Your task to perform on an android device: Open Yahoo.com Image 0: 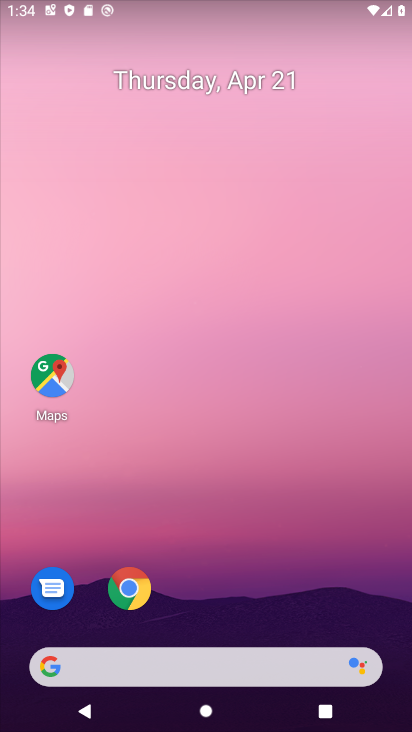
Step 0: drag from (182, 649) to (175, 302)
Your task to perform on an android device: Open Yahoo.com Image 1: 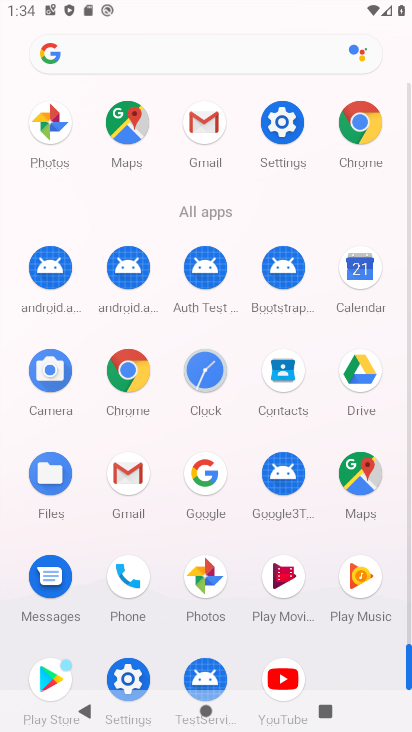
Step 1: click (358, 137)
Your task to perform on an android device: Open Yahoo.com Image 2: 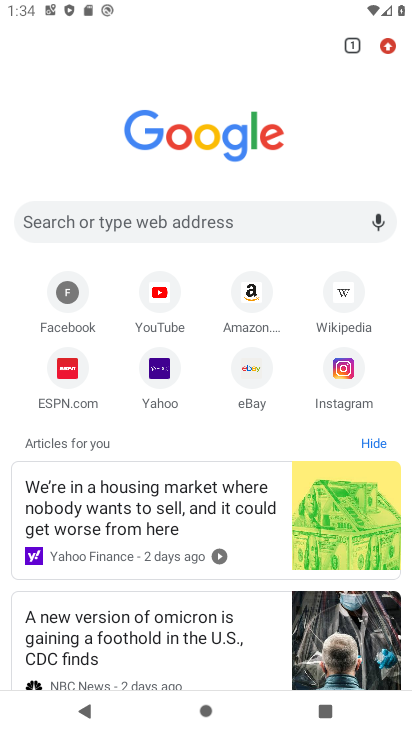
Step 2: click (177, 376)
Your task to perform on an android device: Open Yahoo.com Image 3: 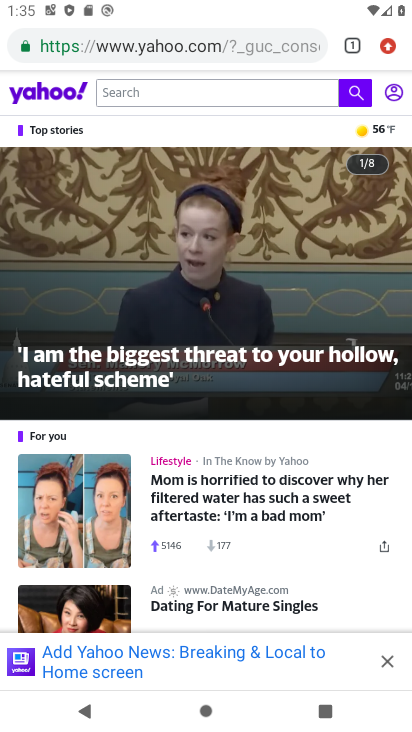
Step 3: task complete